Your task to perform on an android device: View the shopping cart on costco. Image 0: 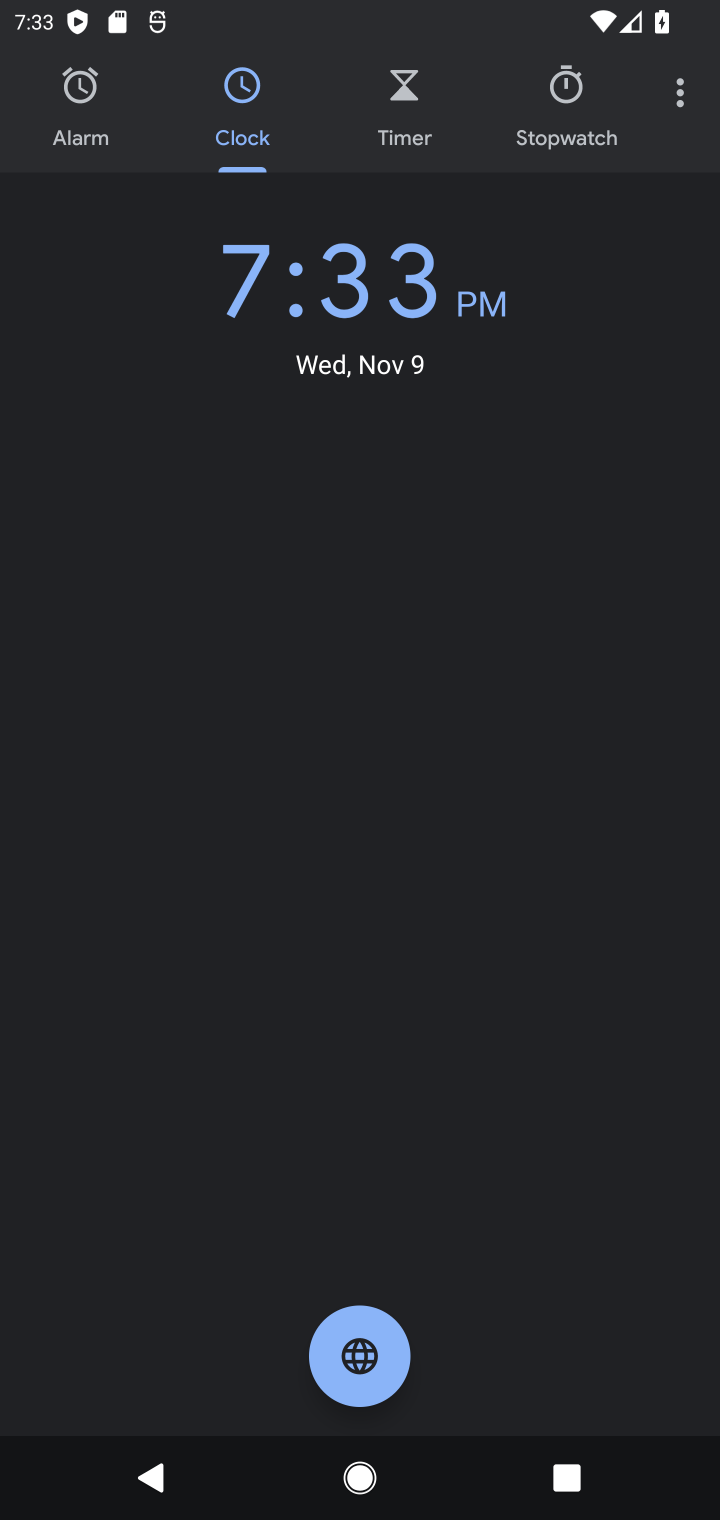
Step 0: press home button
Your task to perform on an android device: View the shopping cart on costco. Image 1: 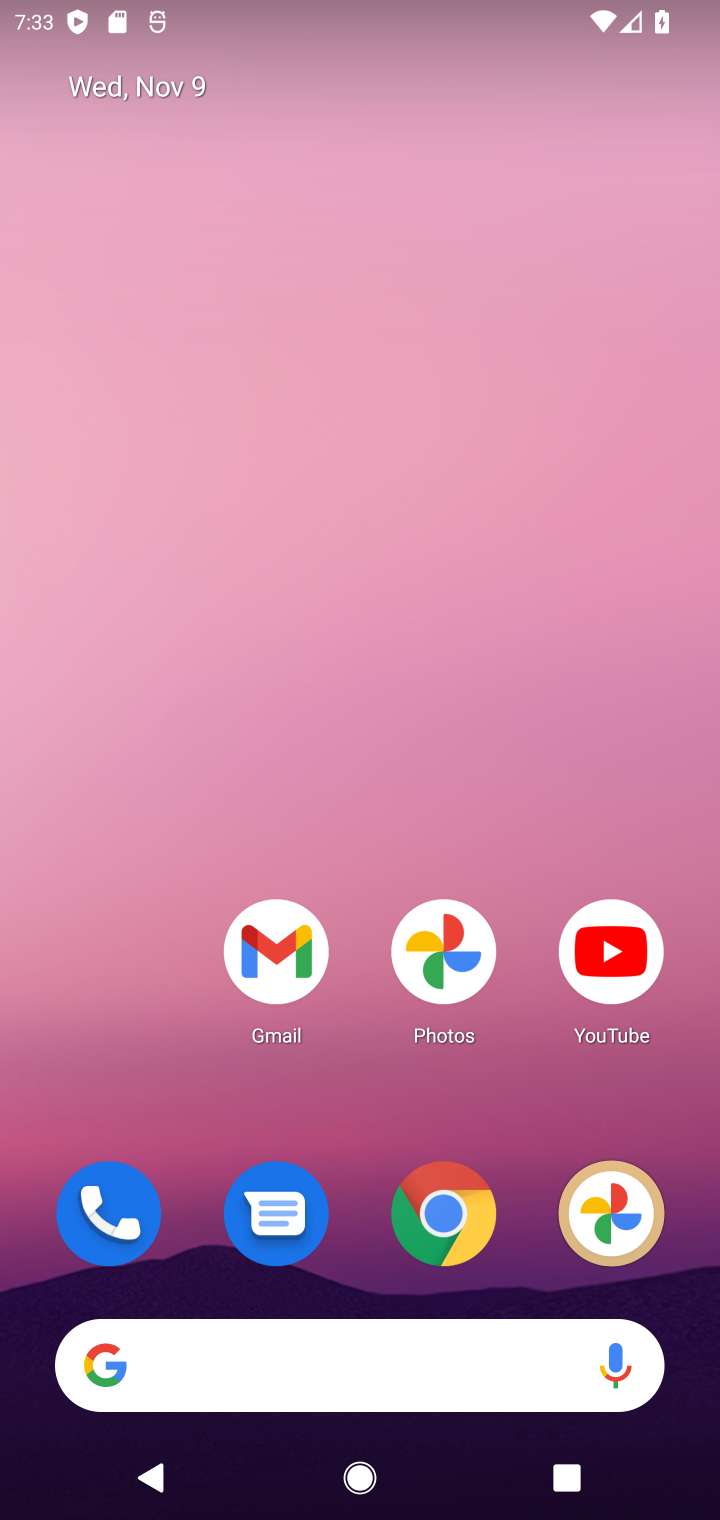
Step 1: click (426, 1208)
Your task to perform on an android device: View the shopping cart on costco. Image 2: 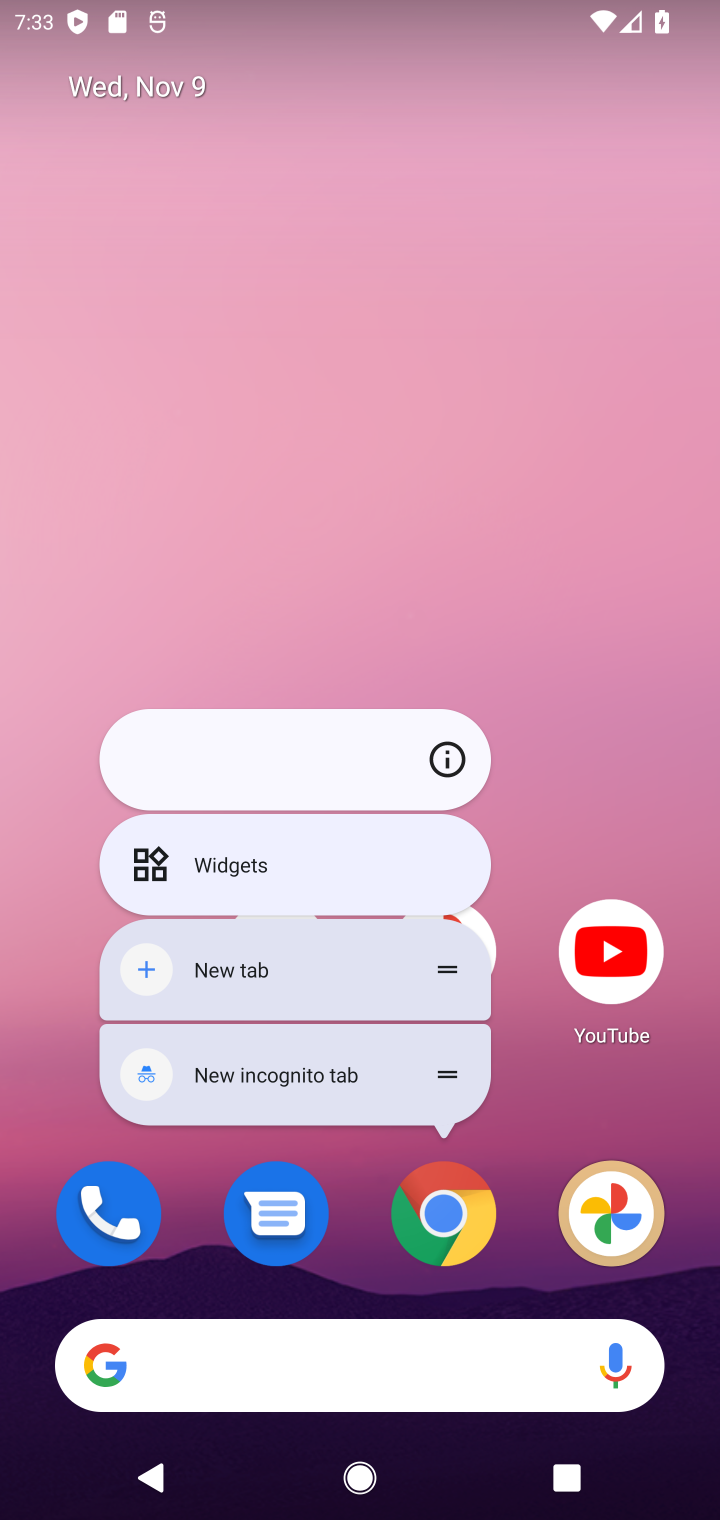
Step 2: click (443, 1228)
Your task to perform on an android device: View the shopping cart on costco. Image 3: 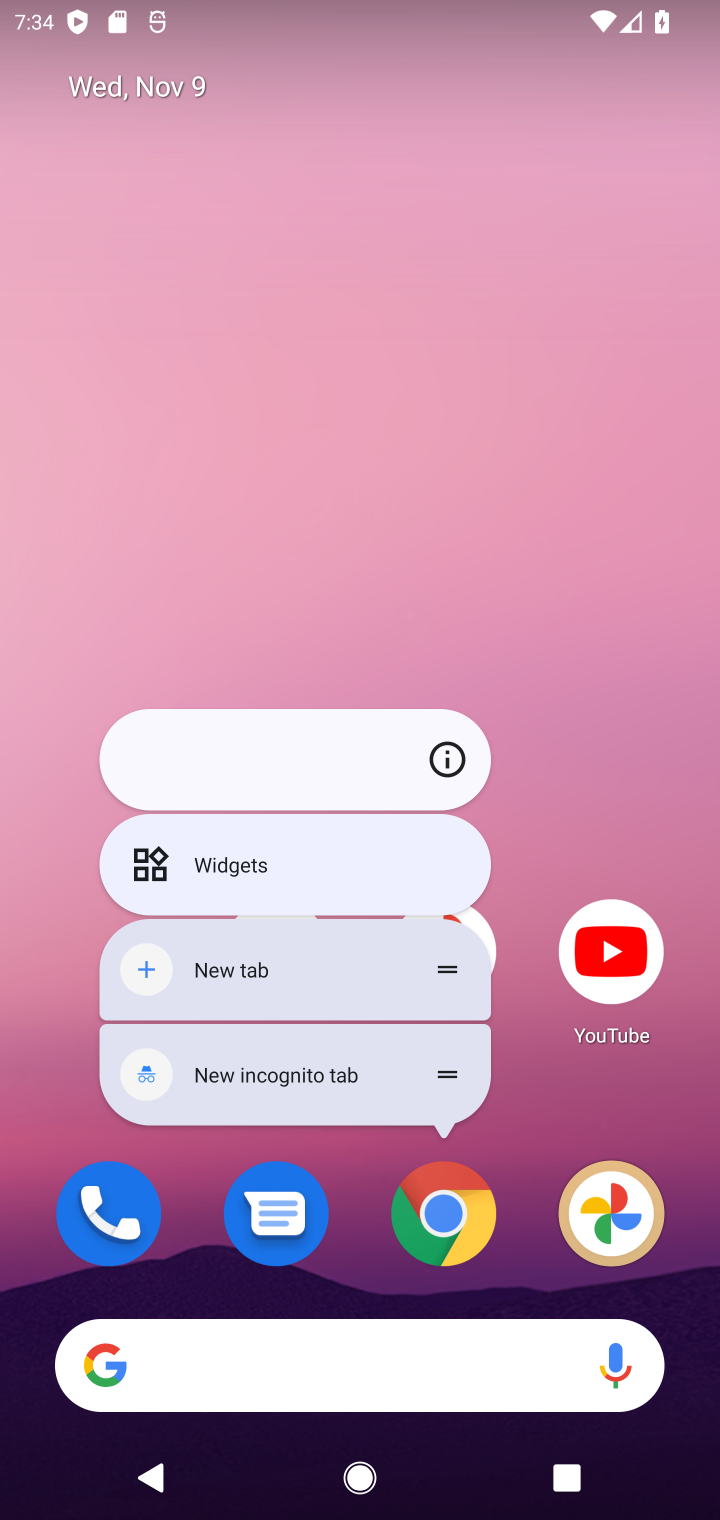
Step 3: click (443, 1223)
Your task to perform on an android device: View the shopping cart on costco. Image 4: 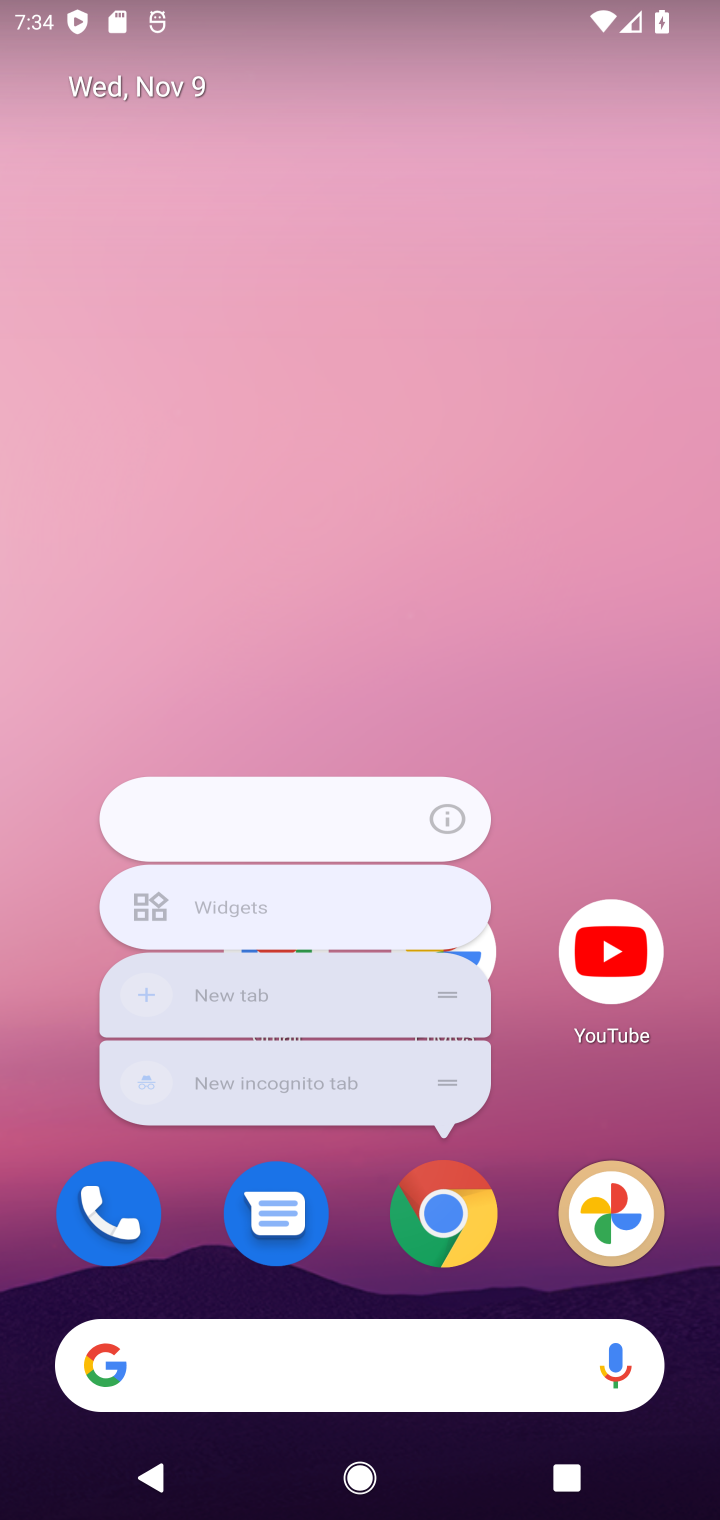
Step 4: click (441, 1215)
Your task to perform on an android device: View the shopping cart on costco. Image 5: 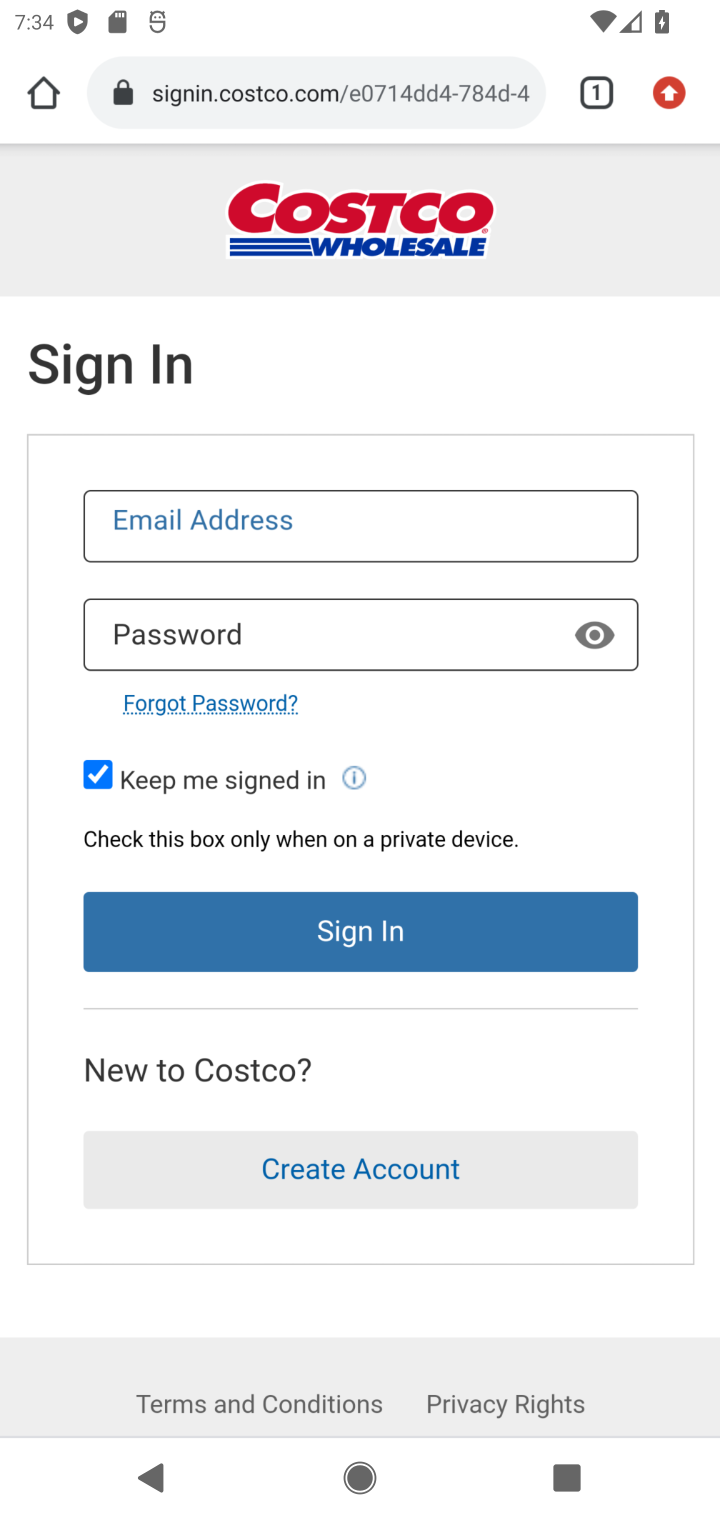
Step 5: click (434, 1240)
Your task to perform on an android device: View the shopping cart on costco. Image 6: 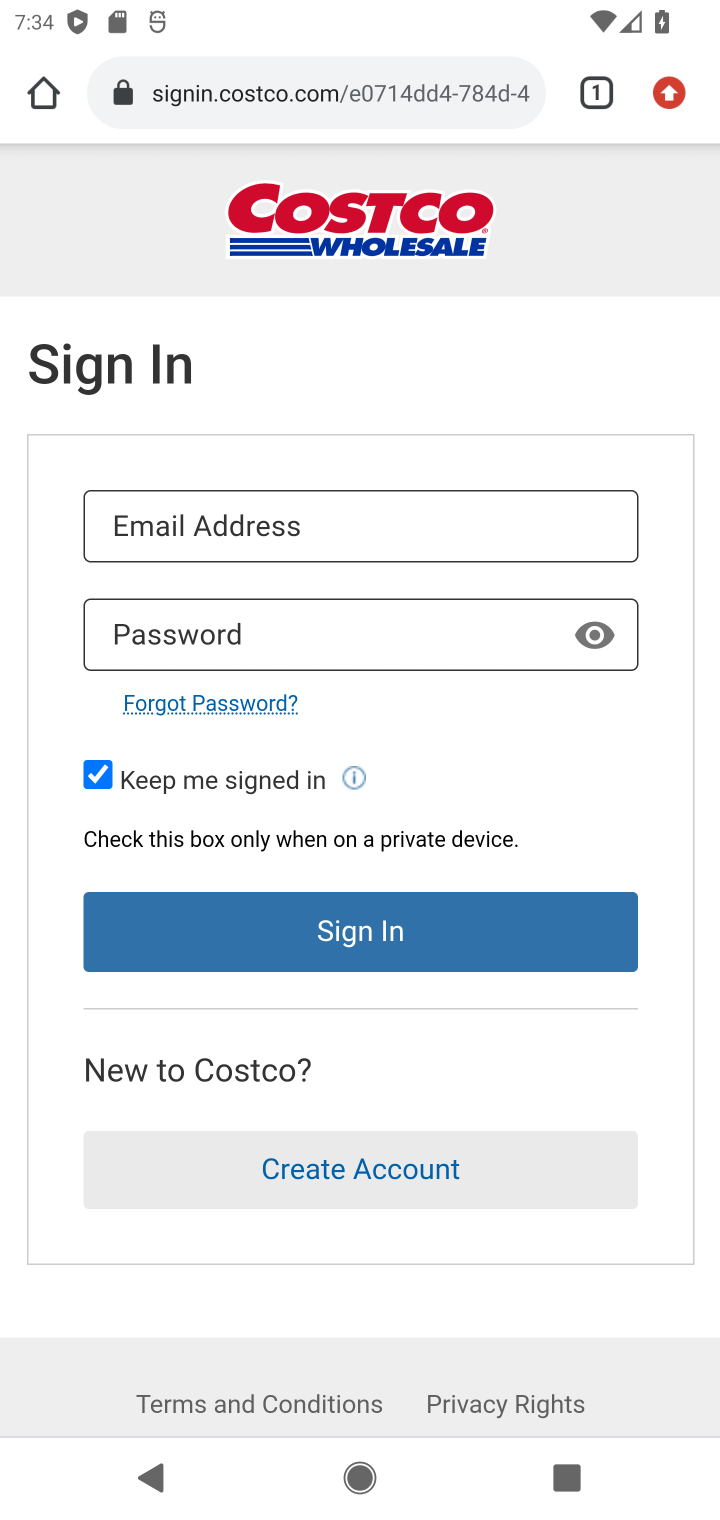
Step 6: click (168, 83)
Your task to perform on an android device: View the shopping cart on costco. Image 7: 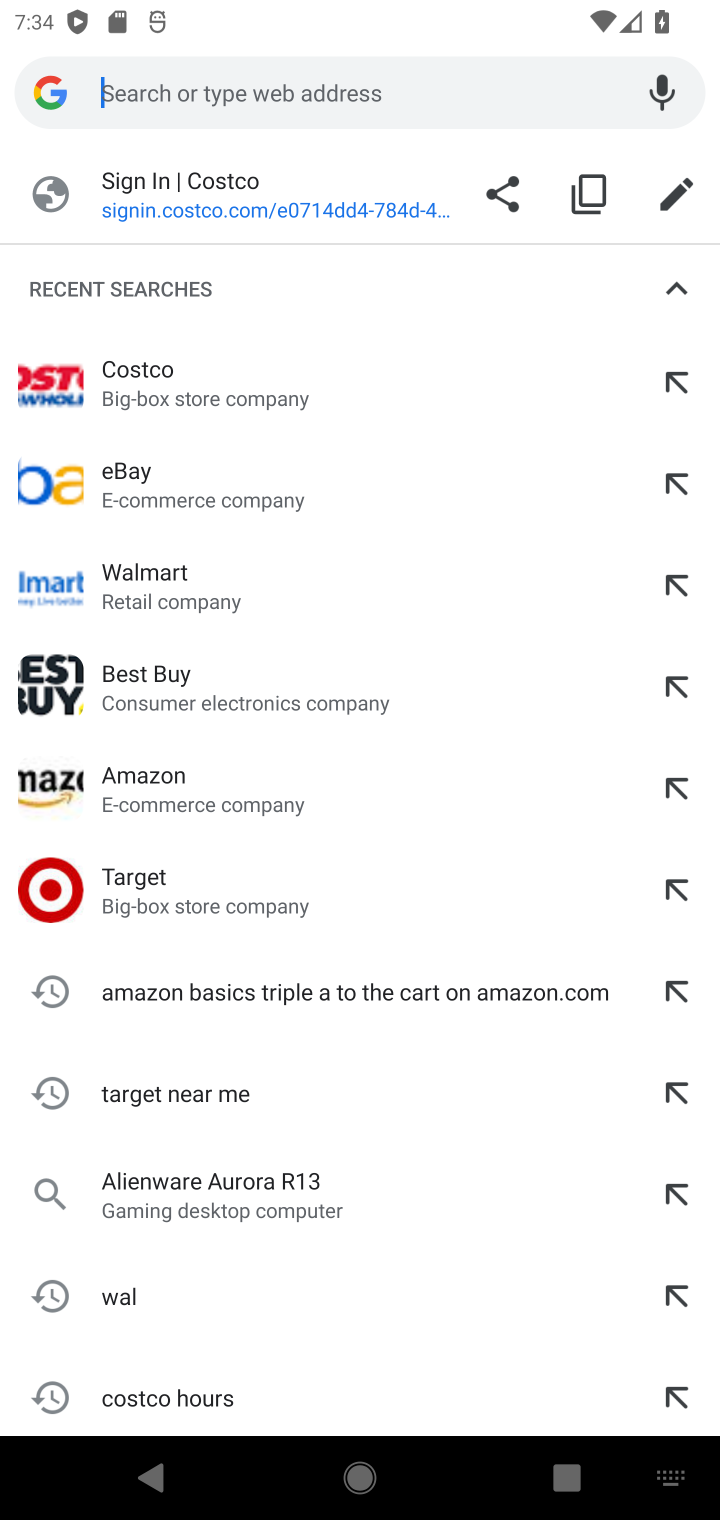
Step 7: click (116, 392)
Your task to perform on an android device: View the shopping cart on costco. Image 8: 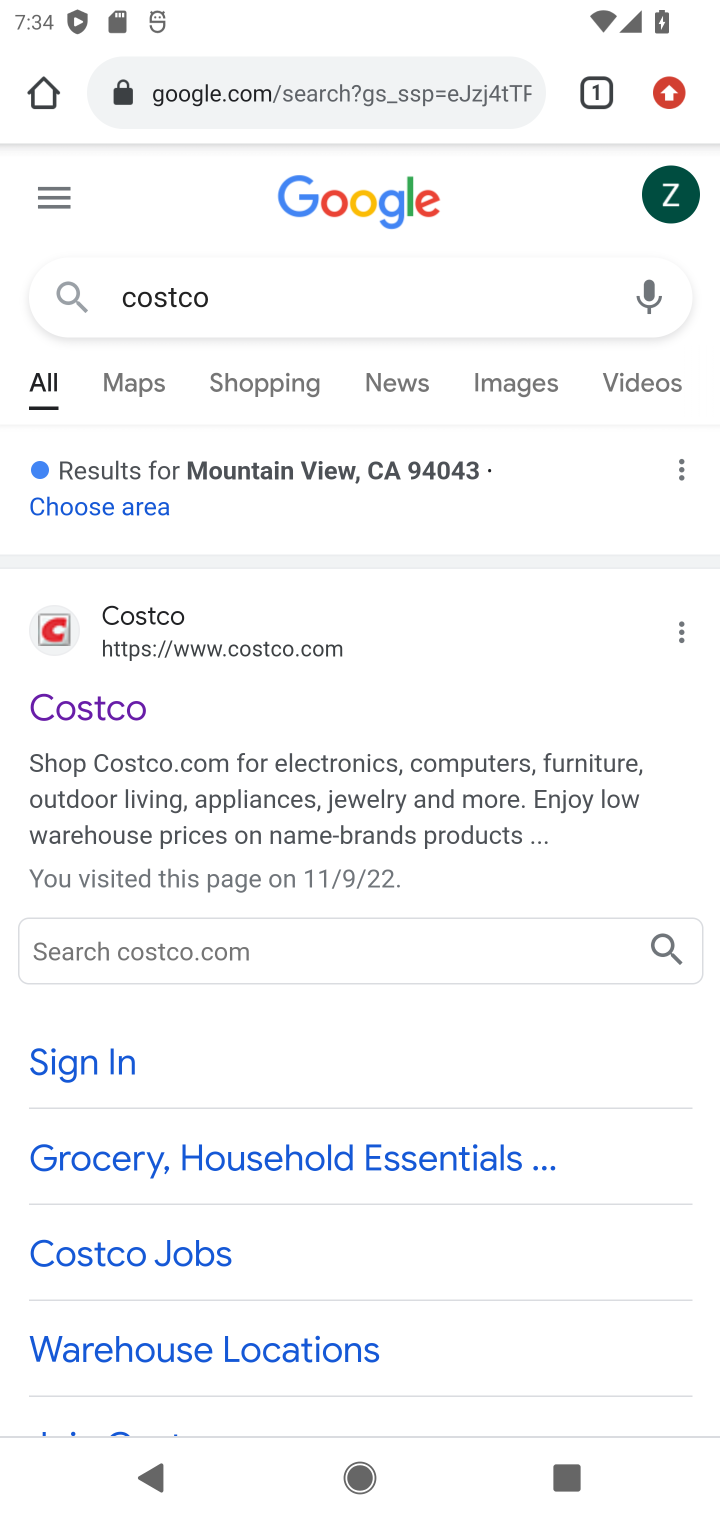
Step 8: click (44, 717)
Your task to perform on an android device: View the shopping cart on costco. Image 9: 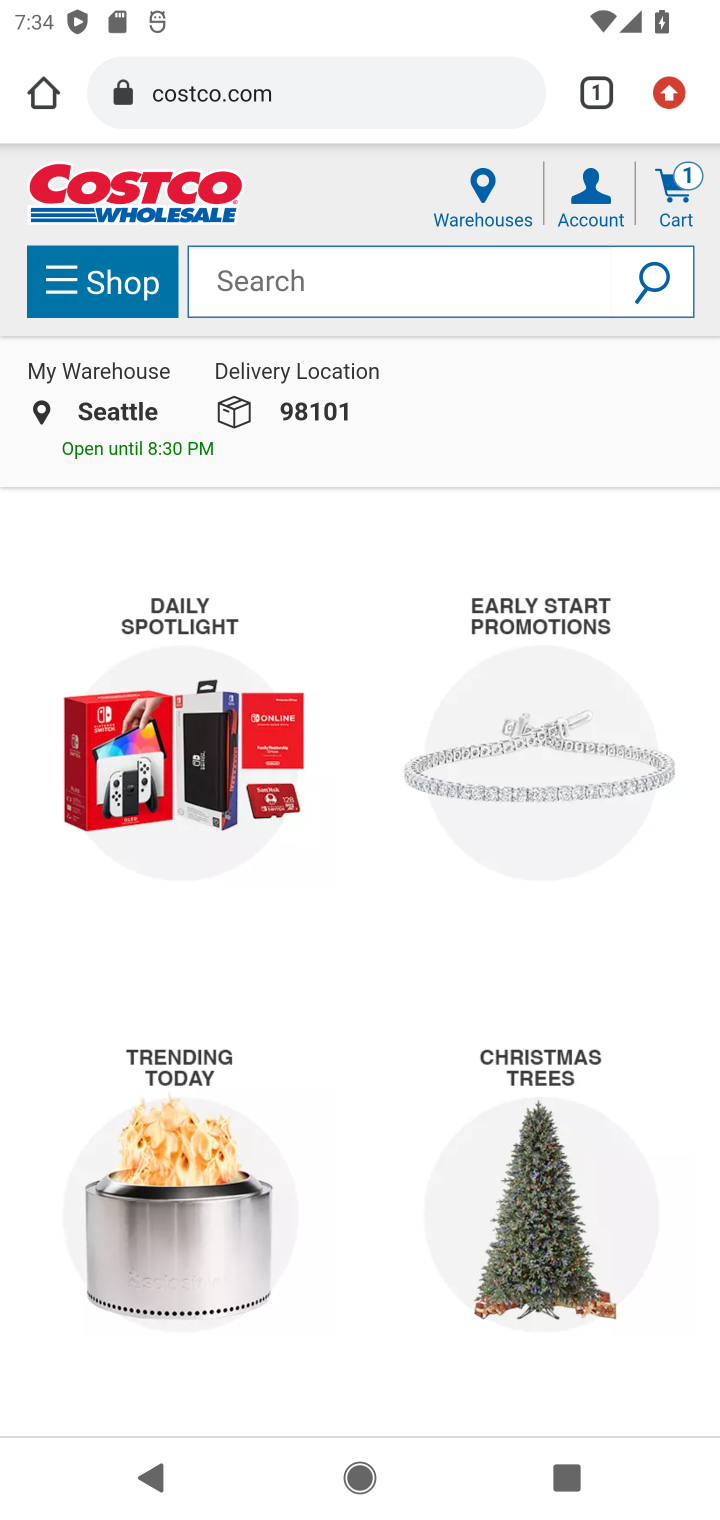
Step 9: click (686, 212)
Your task to perform on an android device: View the shopping cart on costco. Image 10: 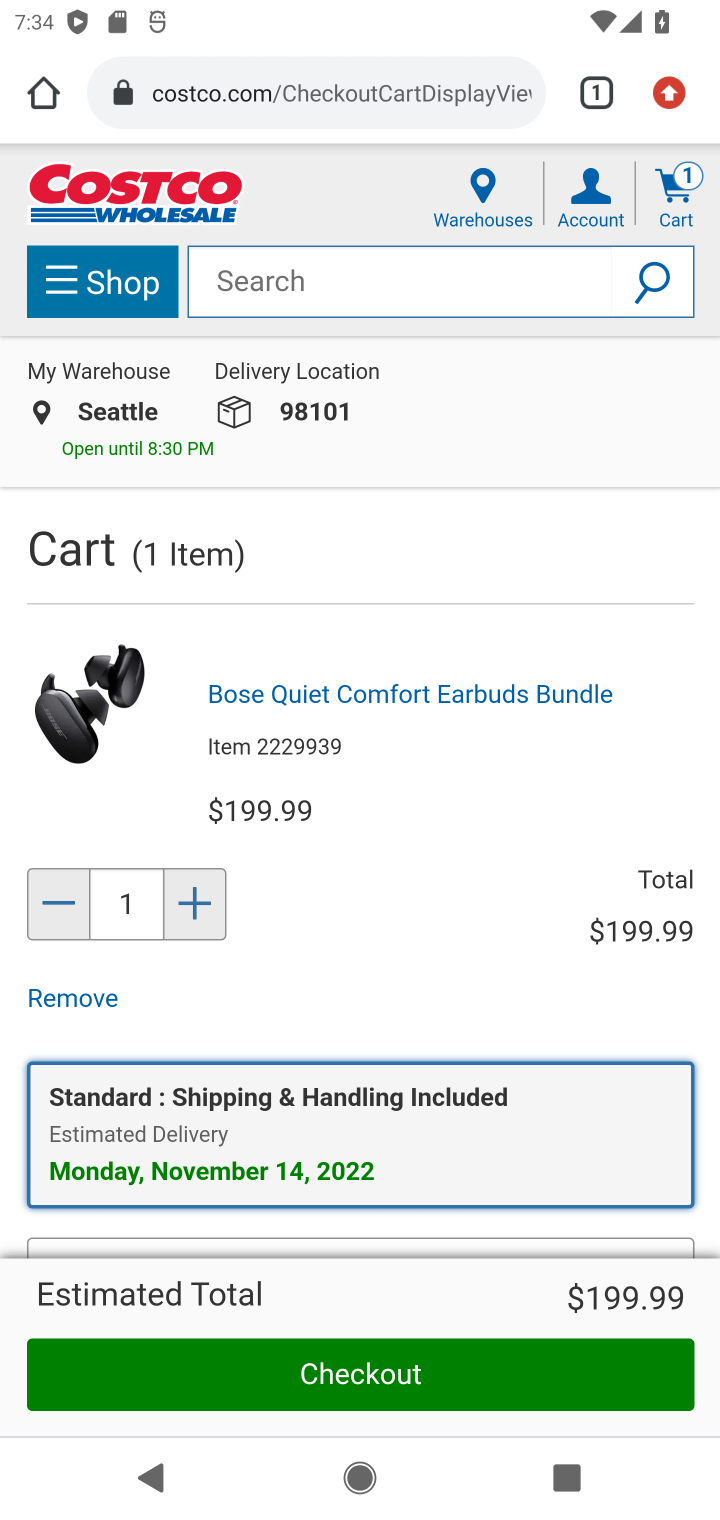
Step 10: click (61, 906)
Your task to perform on an android device: View the shopping cart on costco. Image 11: 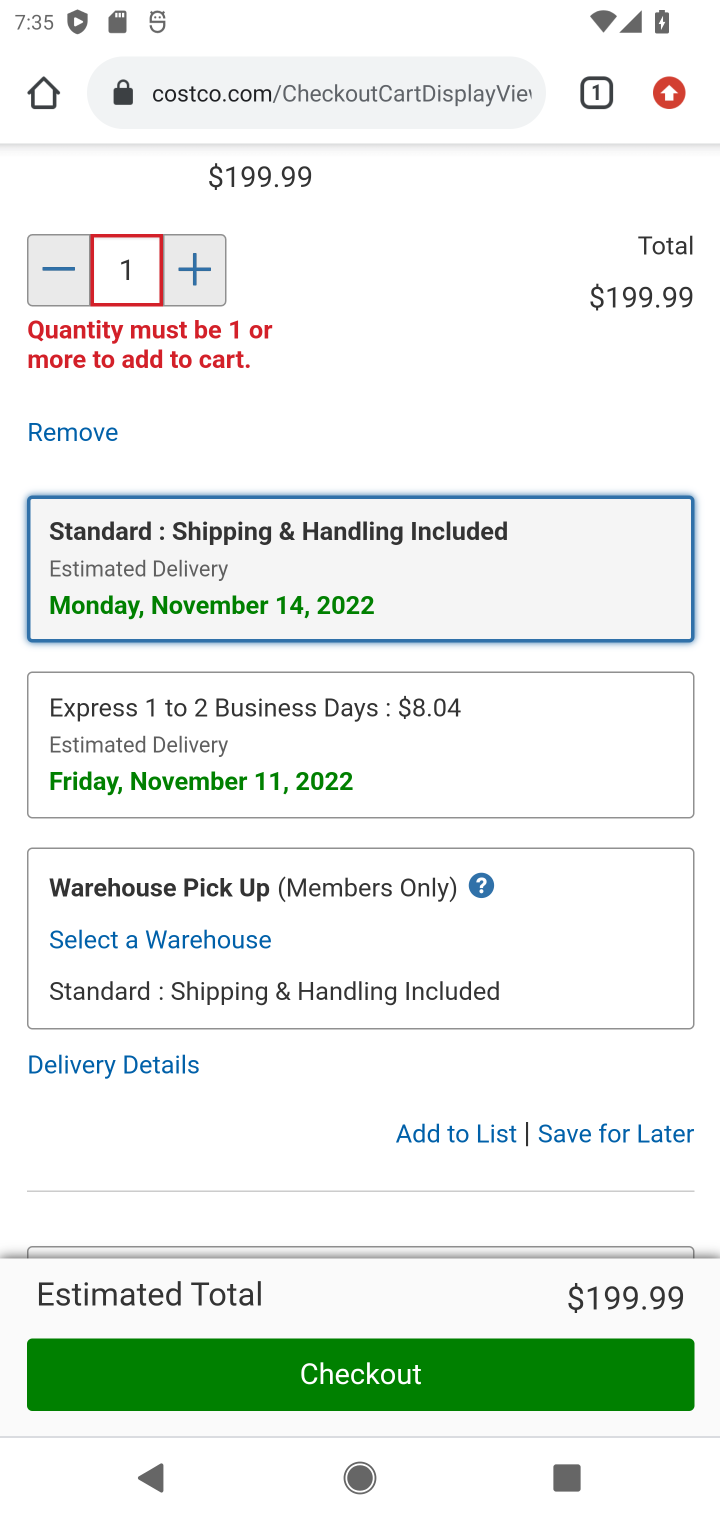
Step 11: drag from (392, 381) to (526, 958)
Your task to perform on an android device: View the shopping cart on costco. Image 12: 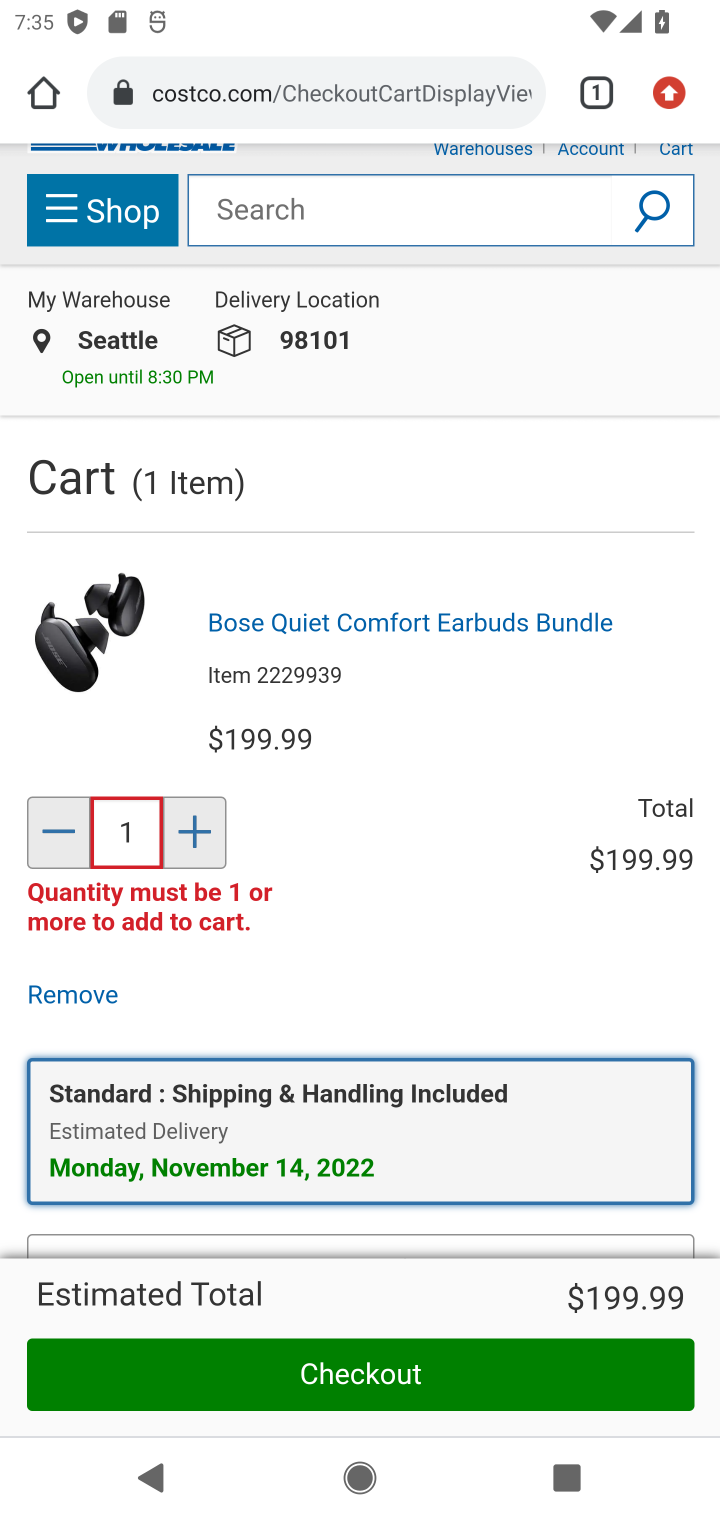
Step 12: click (54, 825)
Your task to perform on an android device: View the shopping cart on costco. Image 13: 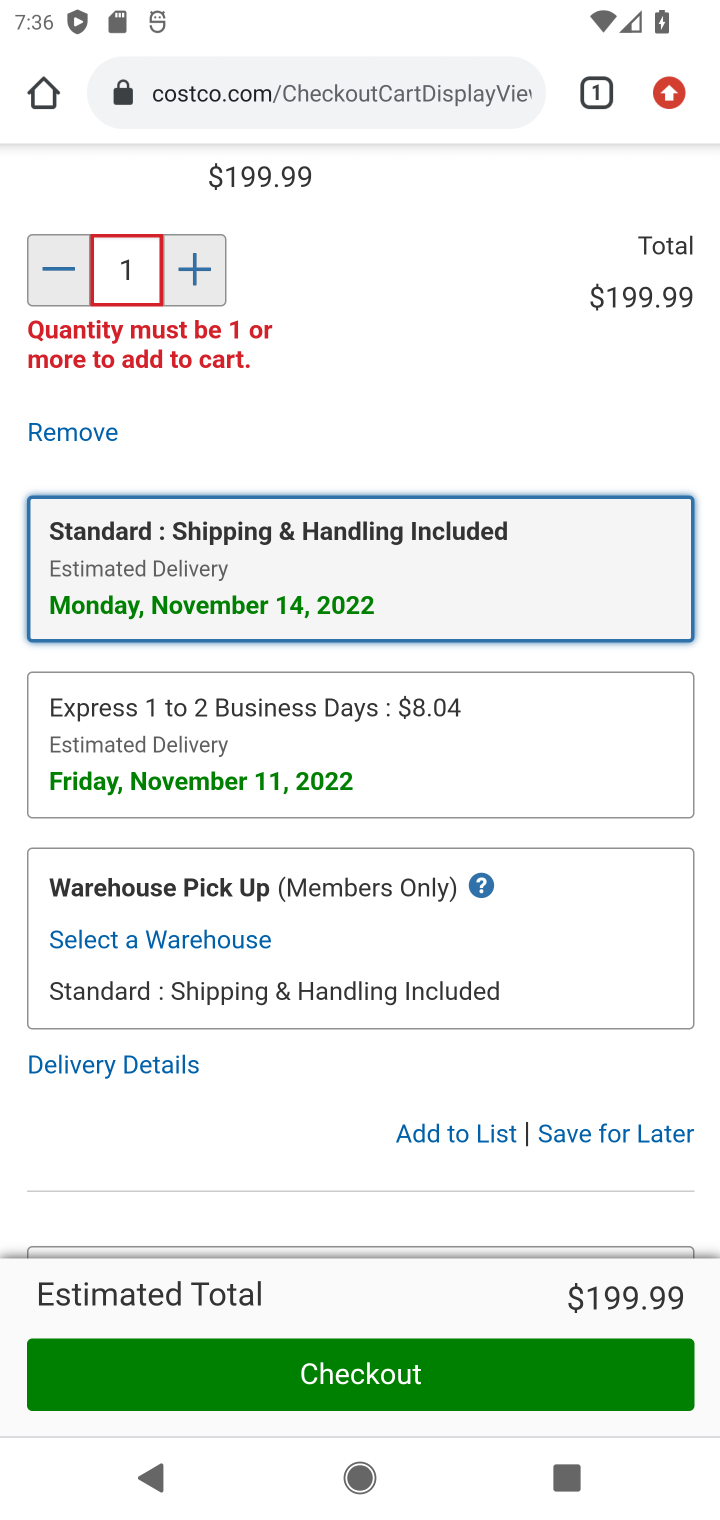
Step 13: task complete